Your task to perform on an android device: add a label to a message in the gmail app Image 0: 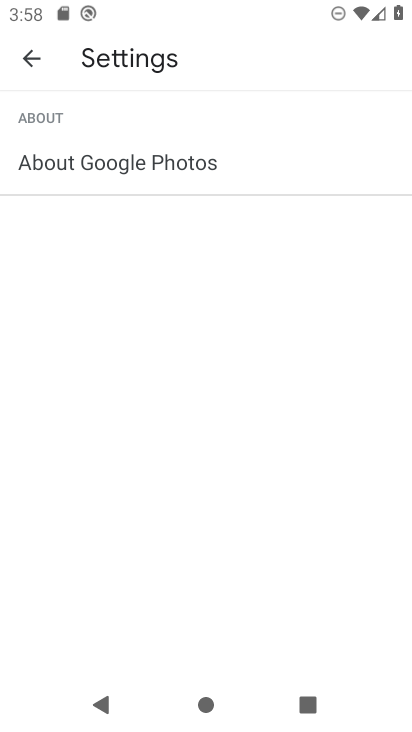
Step 0: press home button
Your task to perform on an android device: add a label to a message in the gmail app Image 1: 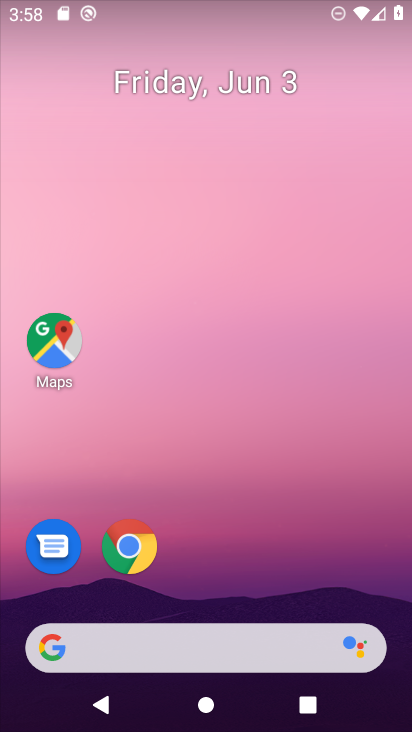
Step 1: drag from (233, 532) to (239, 4)
Your task to perform on an android device: add a label to a message in the gmail app Image 2: 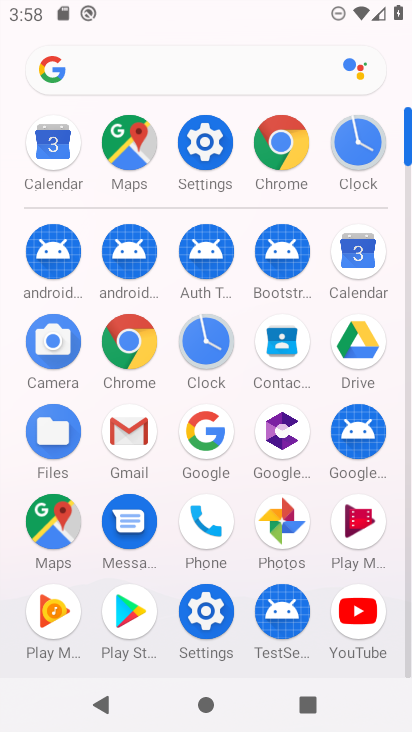
Step 2: click (140, 423)
Your task to perform on an android device: add a label to a message in the gmail app Image 3: 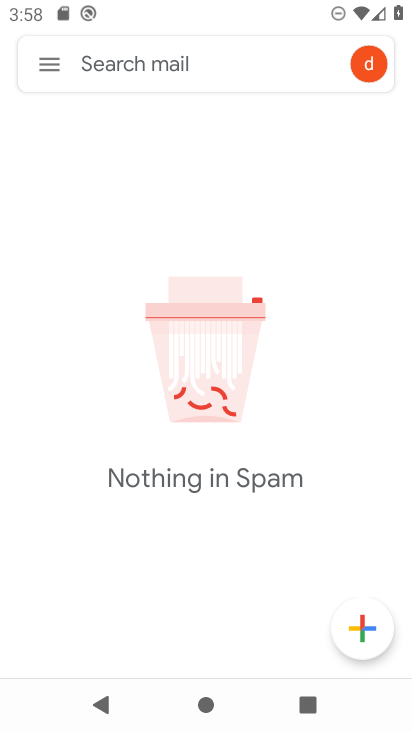
Step 3: click (43, 52)
Your task to perform on an android device: add a label to a message in the gmail app Image 4: 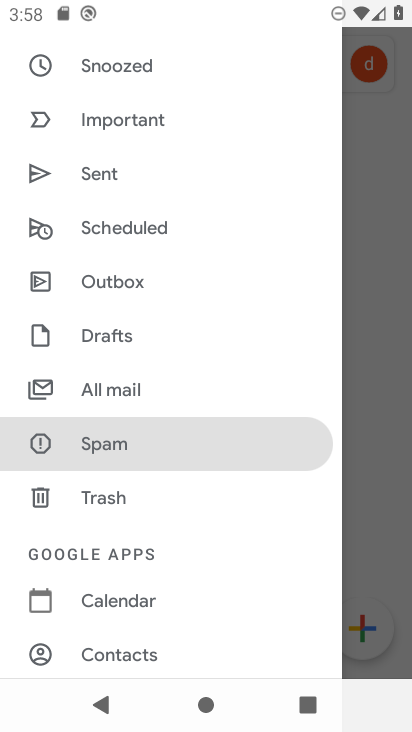
Step 4: click (137, 382)
Your task to perform on an android device: add a label to a message in the gmail app Image 5: 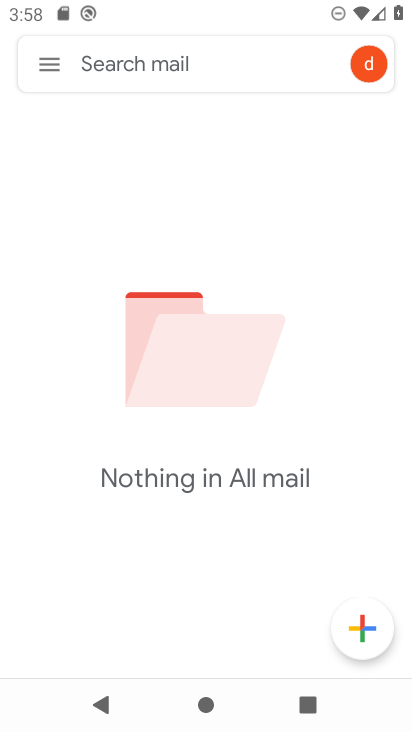
Step 5: task complete